Your task to perform on an android device: Open Chrome and go to settings Image 0: 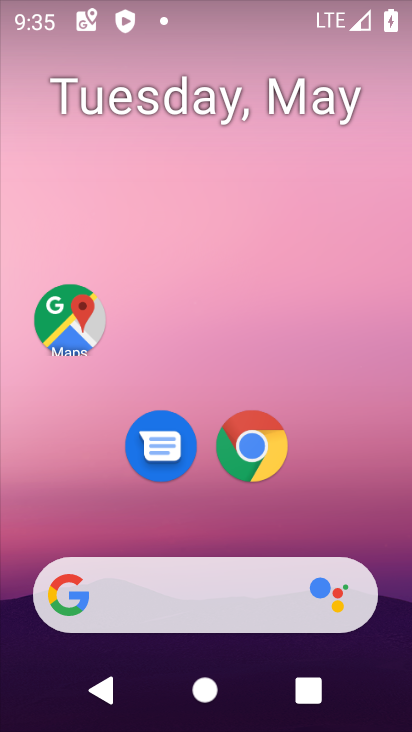
Step 0: click (256, 445)
Your task to perform on an android device: Open Chrome and go to settings Image 1: 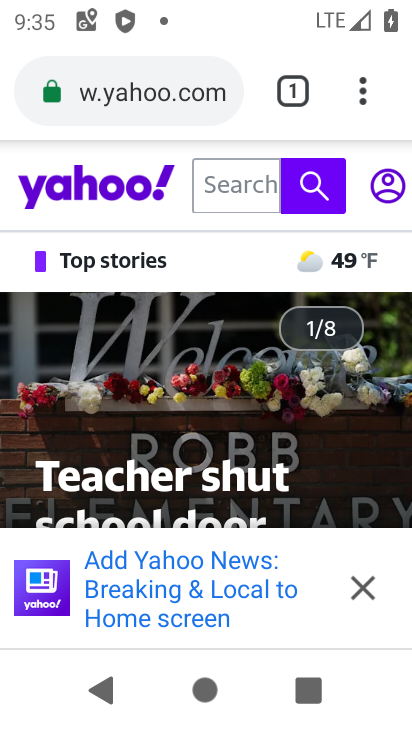
Step 1: task complete